Your task to perform on an android device: set the stopwatch Image 0: 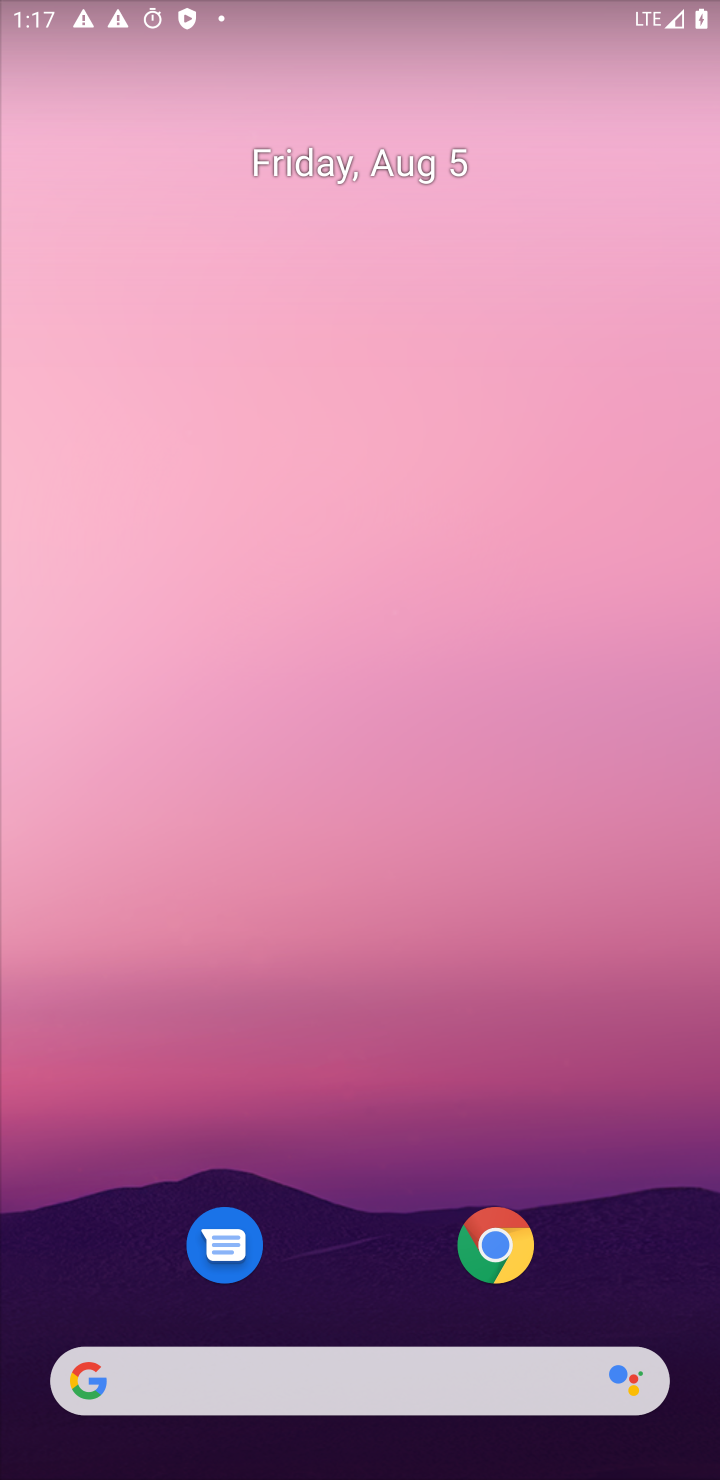
Step 0: click (402, 343)
Your task to perform on an android device: set the stopwatch Image 1: 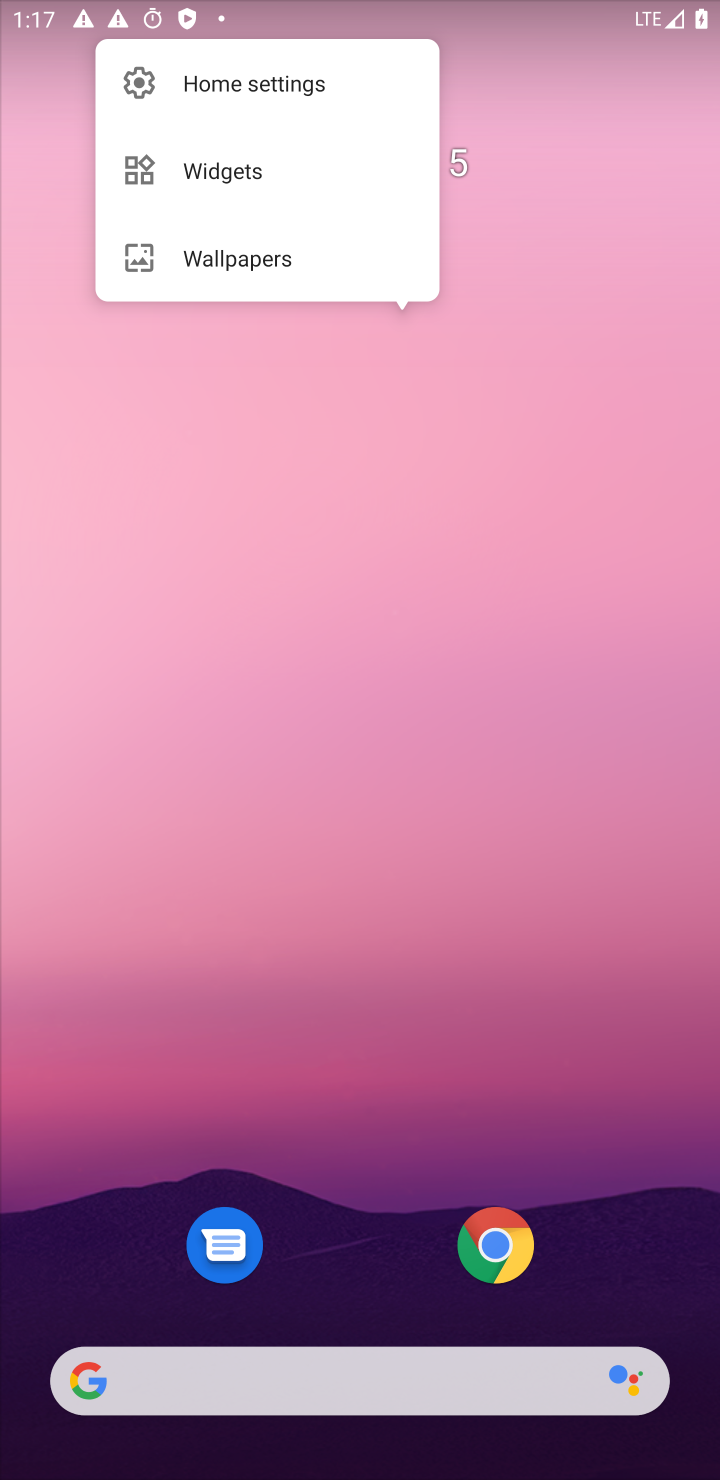
Step 1: drag from (444, 914) to (515, 173)
Your task to perform on an android device: set the stopwatch Image 2: 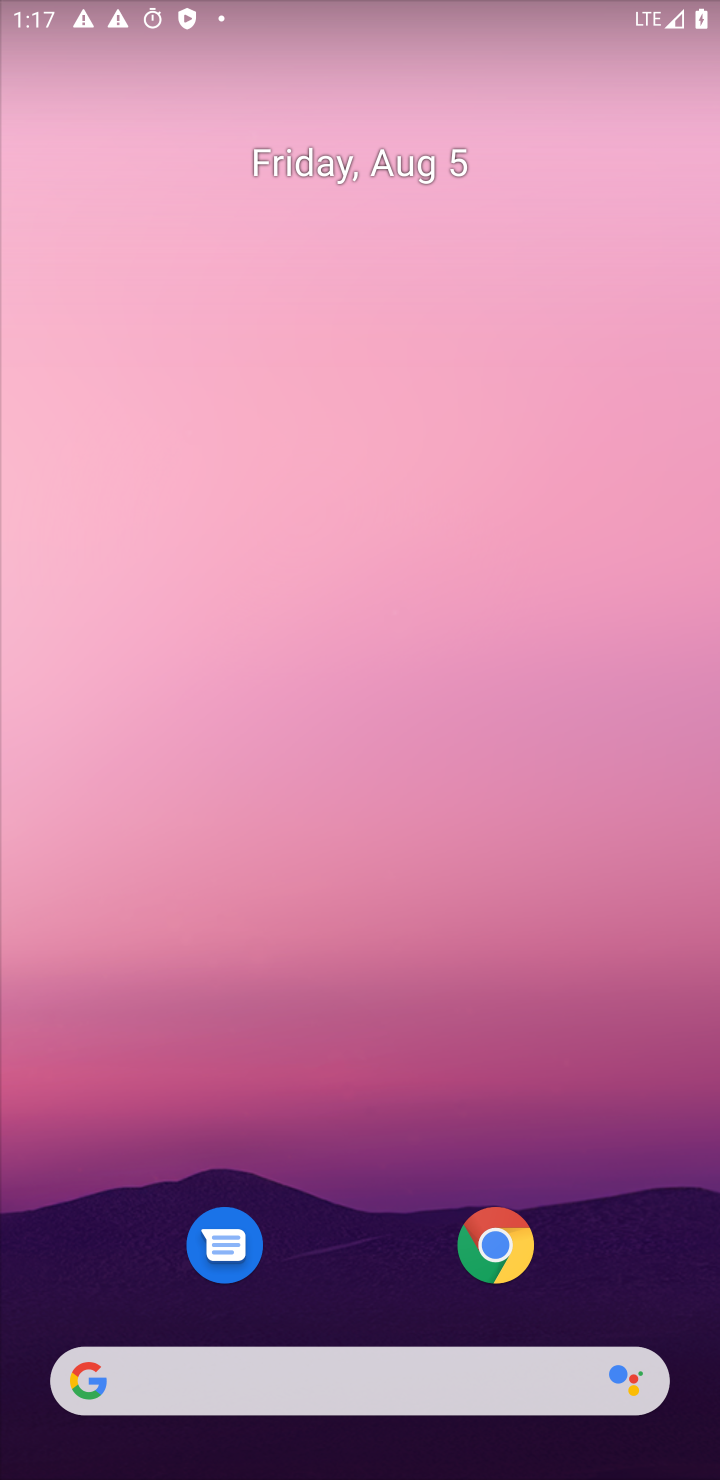
Step 2: drag from (417, 1290) to (559, 62)
Your task to perform on an android device: set the stopwatch Image 3: 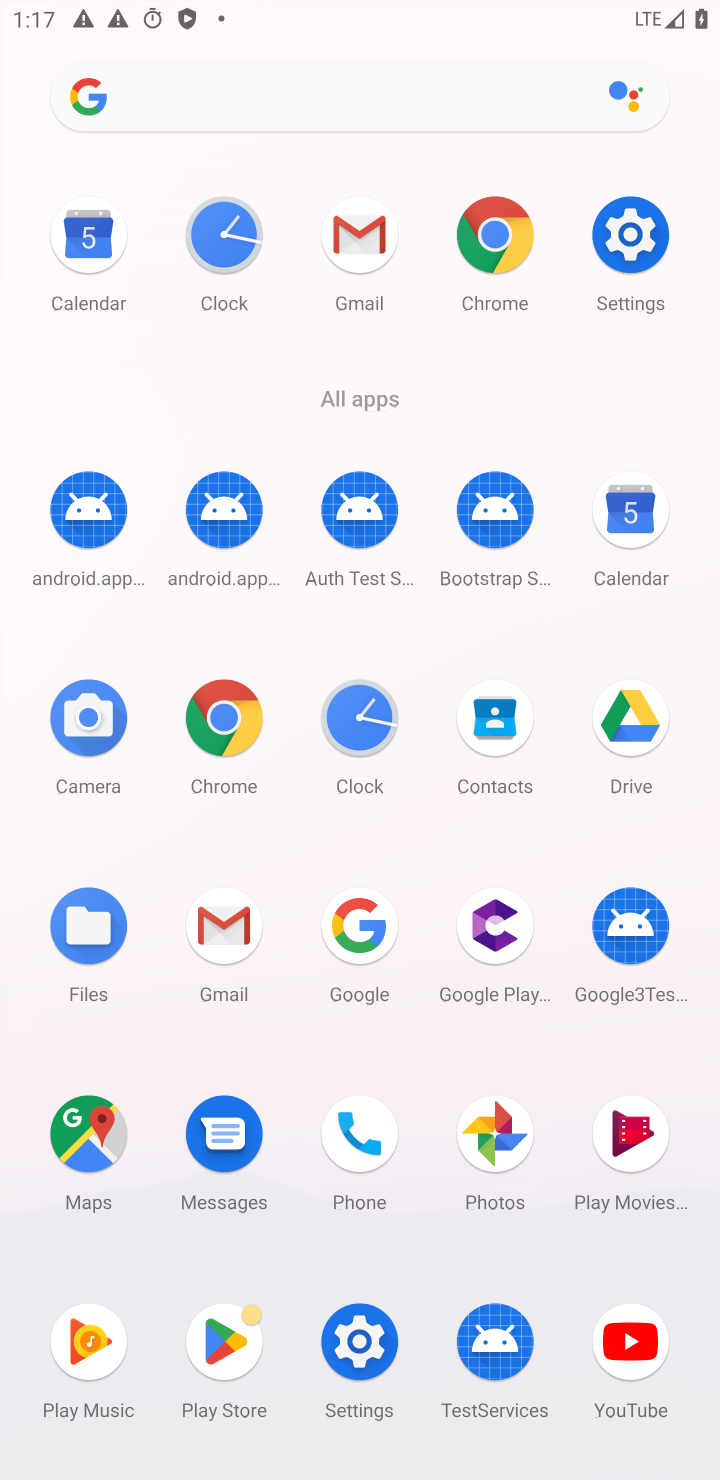
Step 3: click (353, 744)
Your task to perform on an android device: set the stopwatch Image 4: 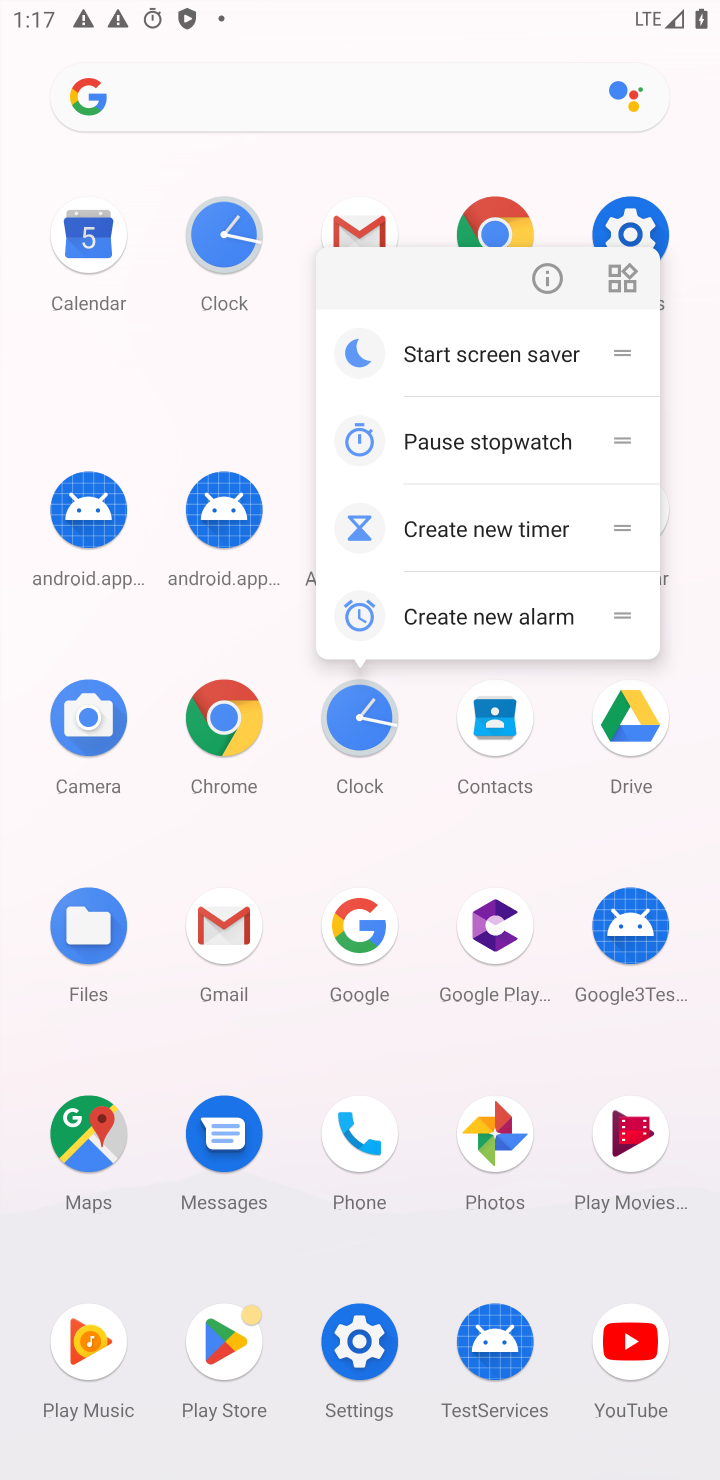
Step 4: click (353, 744)
Your task to perform on an android device: set the stopwatch Image 5: 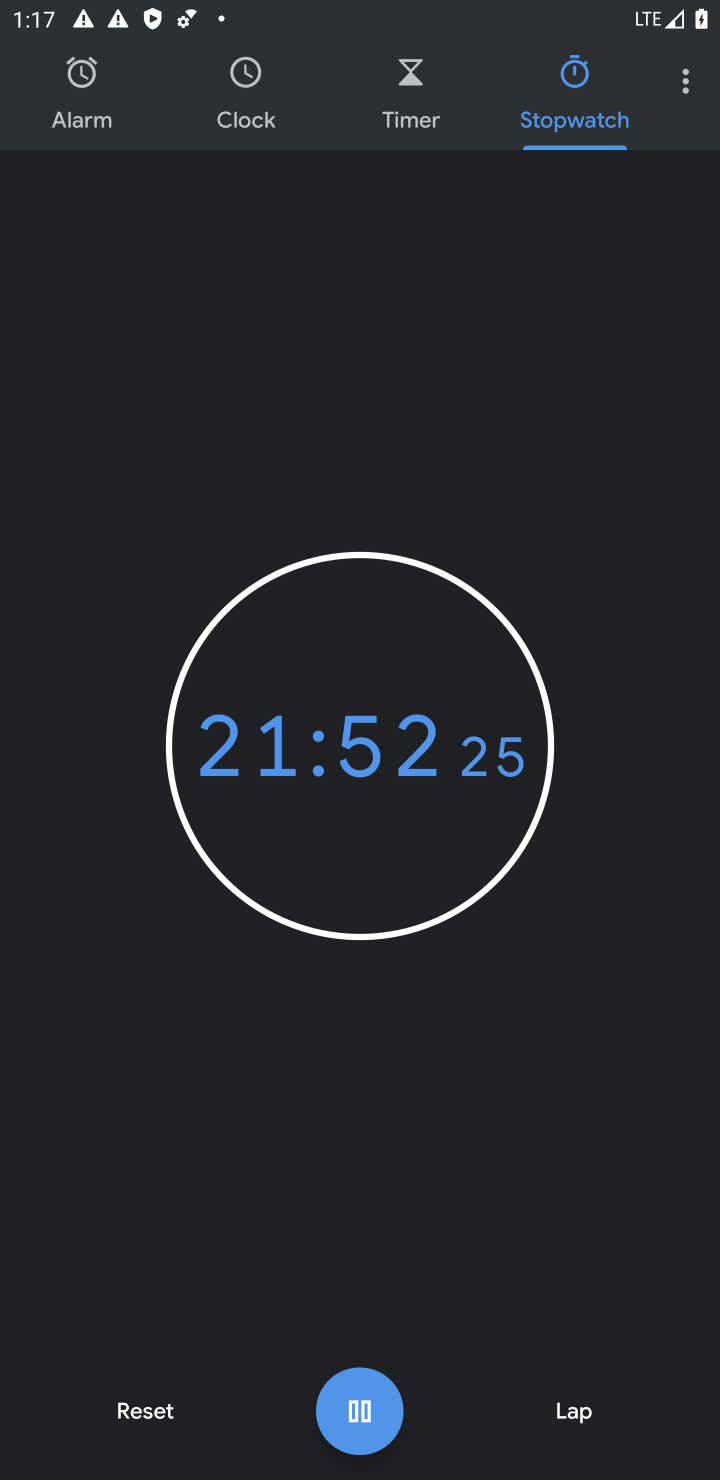
Step 5: task complete